Your task to perform on an android device: Open my contact list Image 0: 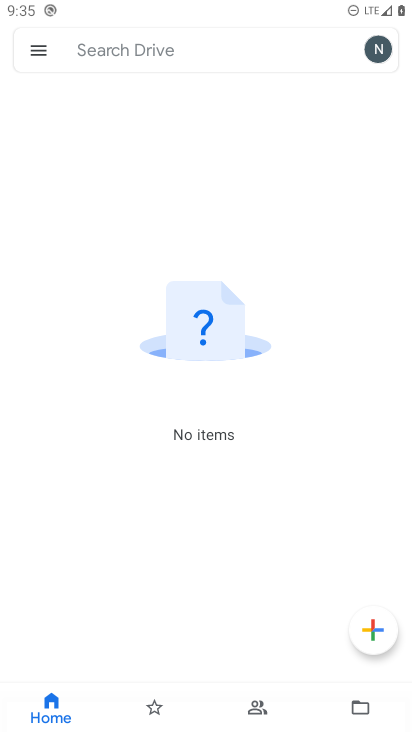
Step 0: press home button
Your task to perform on an android device: Open my contact list Image 1: 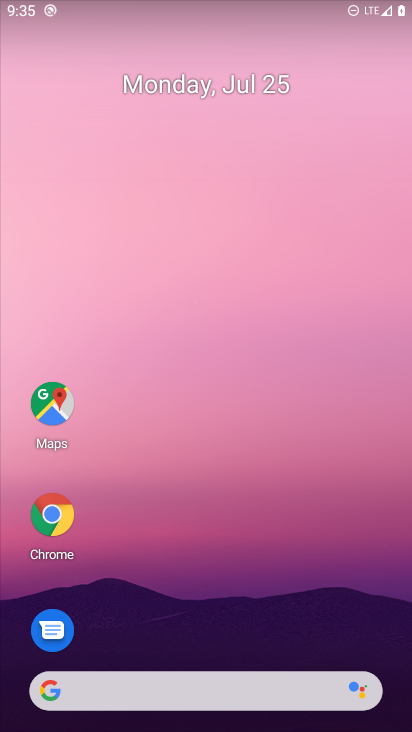
Step 1: drag from (192, 300) to (261, 22)
Your task to perform on an android device: Open my contact list Image 2: 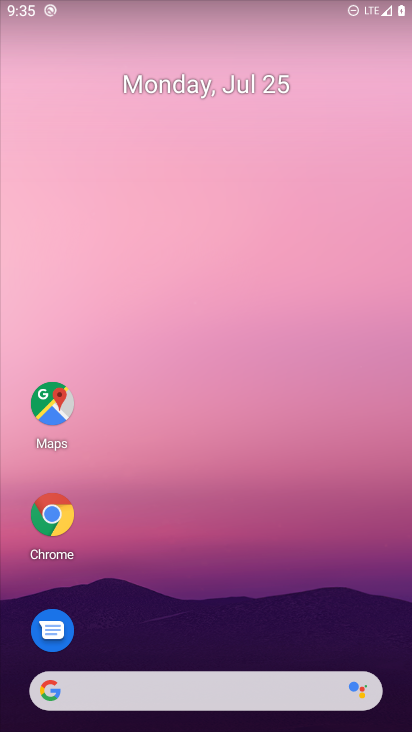
Step 2: drag from (76, 610) to (200, 245)
Your task to perform on an android device: Open my contact list Image 3: 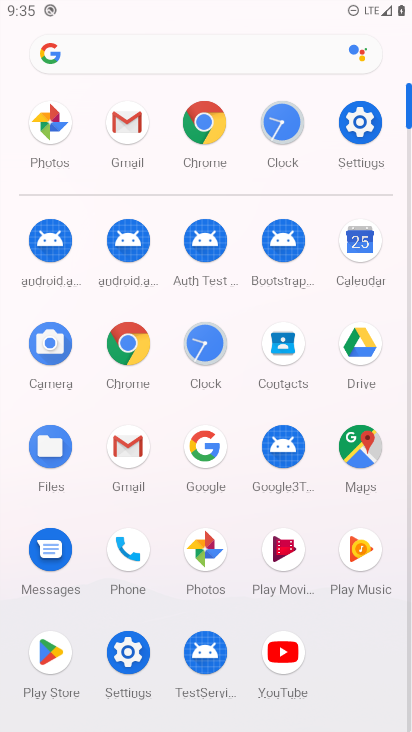
Step 3: click (273, 365)
Your task to perform on an android device: Open my contact list Image 4: 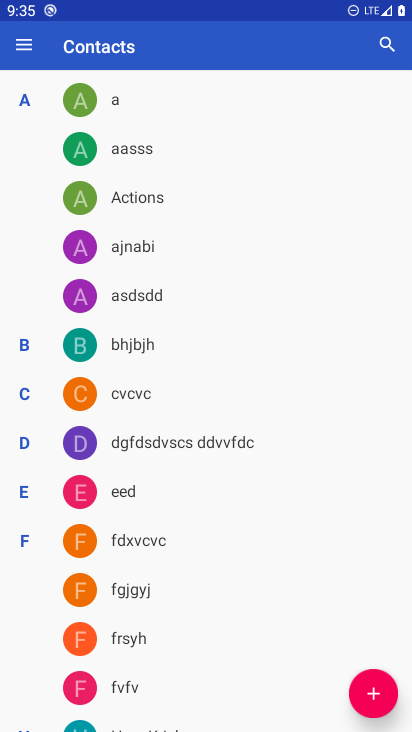
Step 4: task complete